Your task to perform on an android device: Open Android settings Image 0: 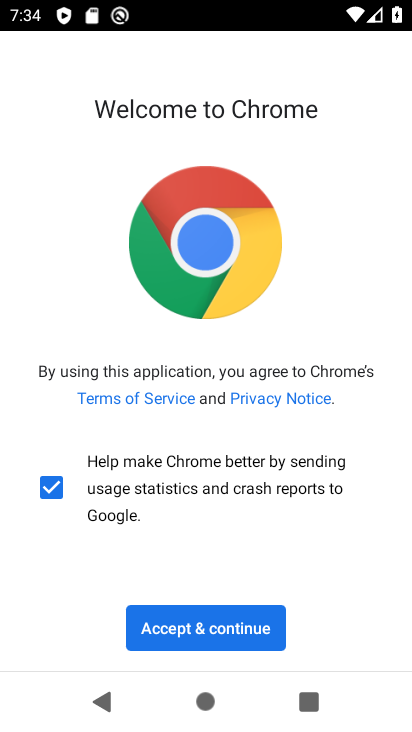
Step 0: press home button
Your task to perform on an android device: Open Android settings Image 1: 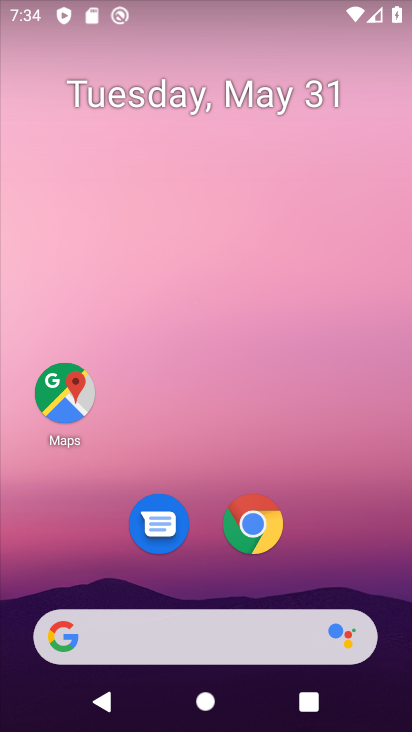
Step 1: drag from (220, 570) to (243, 23)
Your task to perform on an android device: Open Android settings Image 2: 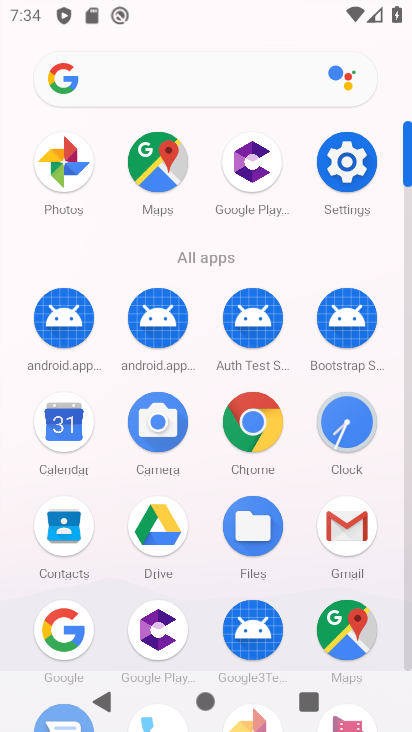
Step 2: click (341, 167)
Your task to perform on an android device: Open Android settings Image 3: 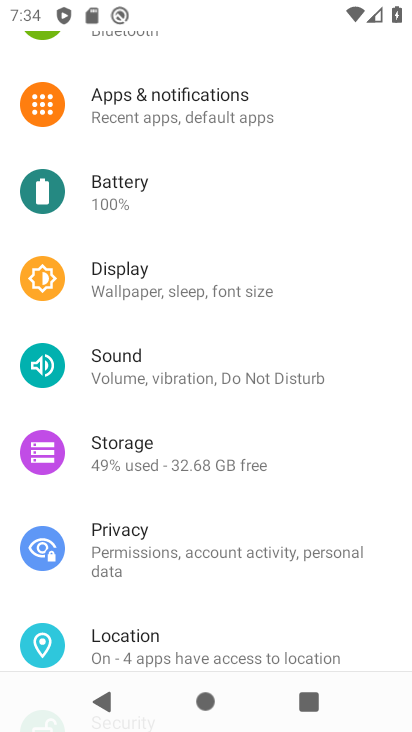
Step 3: drag from (211, 579) to (228, 92)
Your task to perform on an android device: Open Android settings Image 4: 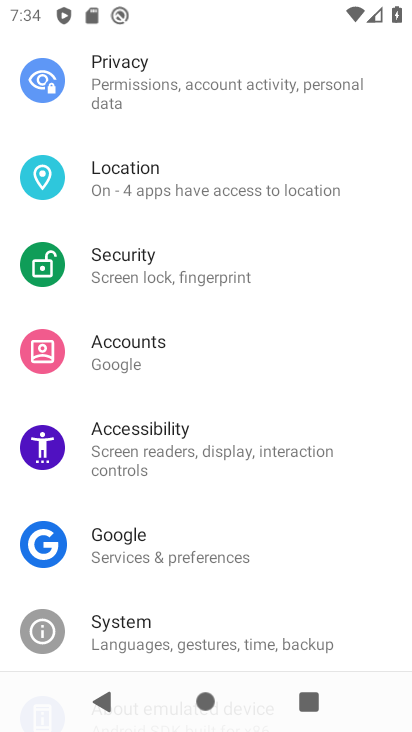
Step 4: drag from (203, 534) to (198, 233)
Your task to perform on an android device: Open Android settings Image 5: 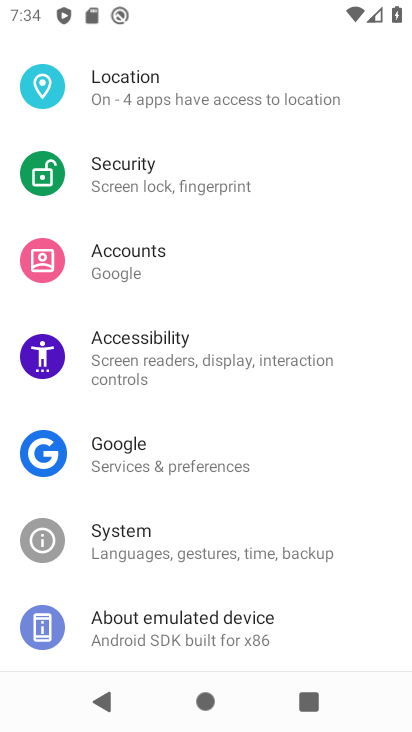
Step 5: click (178, 616)
Your task to perform on an android device: Open Android settings Image 6: 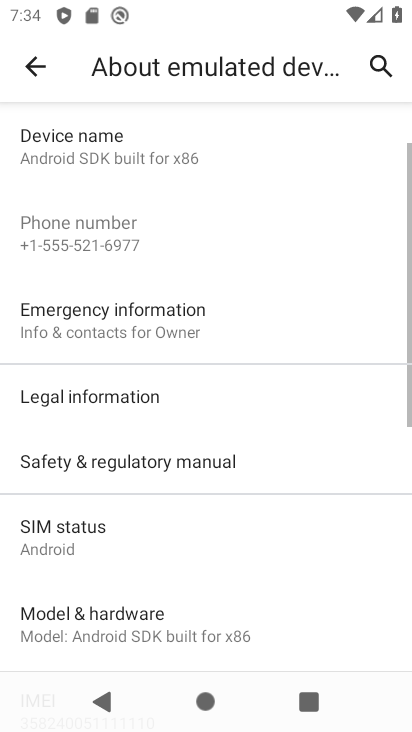
Step 6: task complete